Your task to perform on an android device: check storage Image 0: 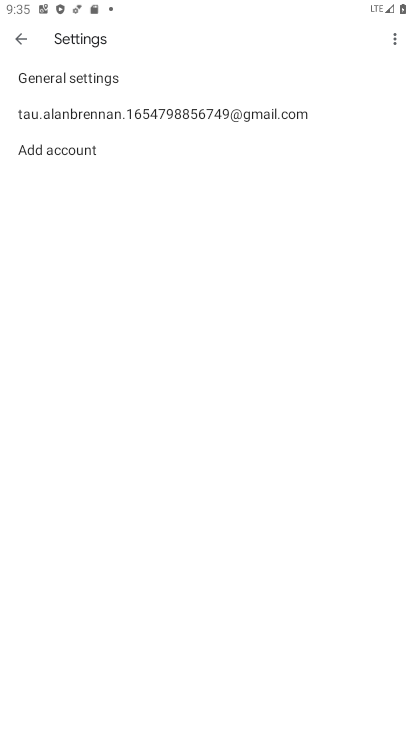
Step 0: press home button
Your task to perform on an android device: check storage Image 1: 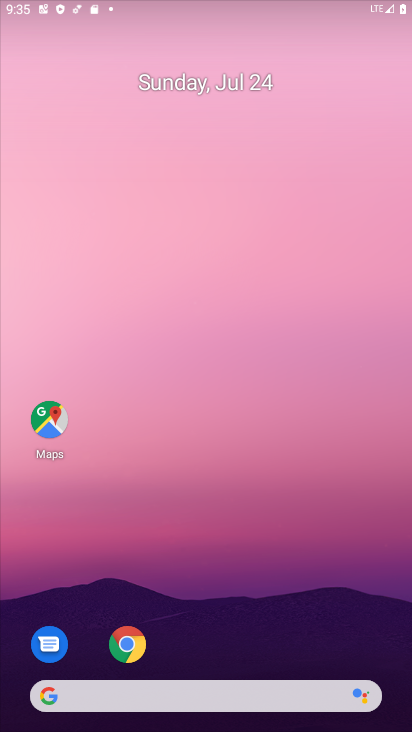
Step 1: drag from (29, 462) to (272, 41)
Your task to perform on an android device: check storage Image 2: 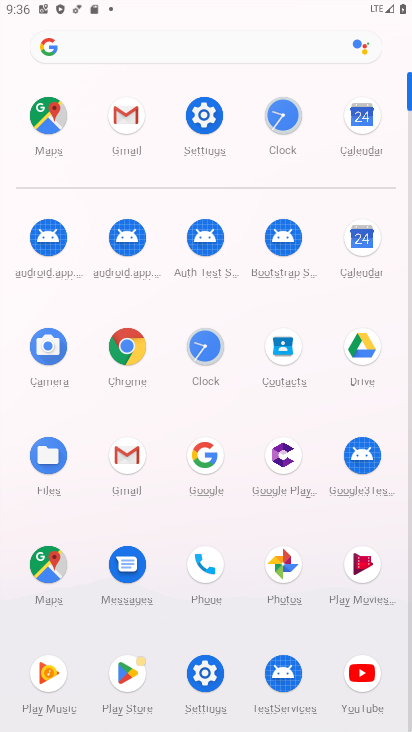
Step 2: click (197, 120)
Your task to perform on an android device: check storage Image 3: 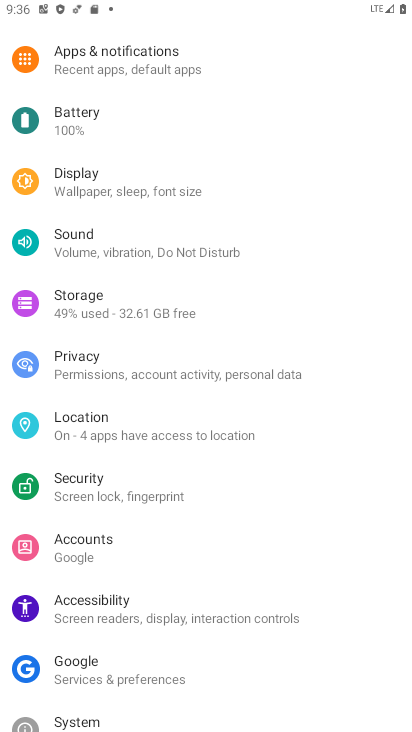
Step 3: drag from (129, 568) to (250, 138)
Your task to perform on an android device: check storage Image 4: 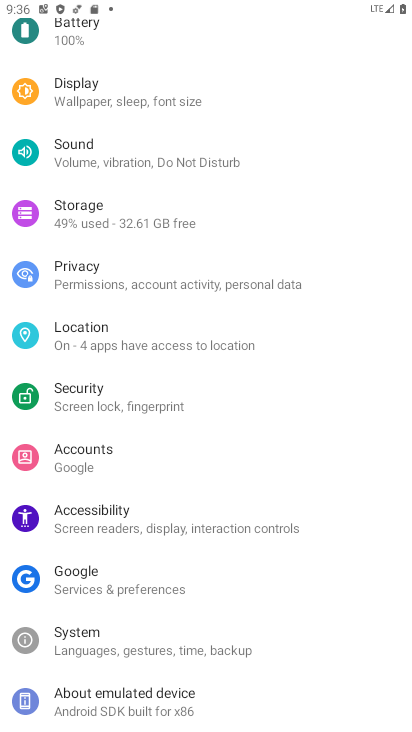
Step 4: drag from (188, 187) to (131, 590)
Your task to perform on an android device: check storage Image 5: 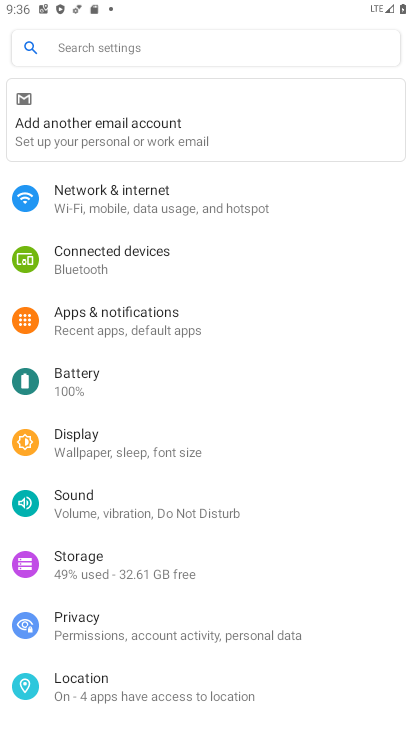
Step 5: click (96, 554)
Your task to perform on an android device: check storage Image 6: 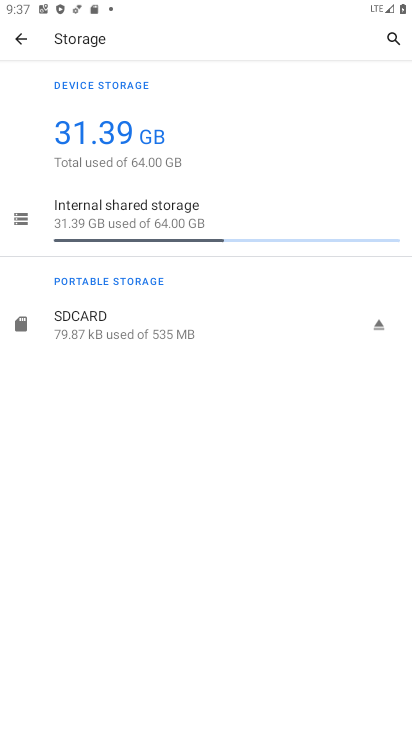
Step 6: task complete